Your task to perform on an android device: open app "Spotify" (install if not already installed) and go to login screen Image 0: 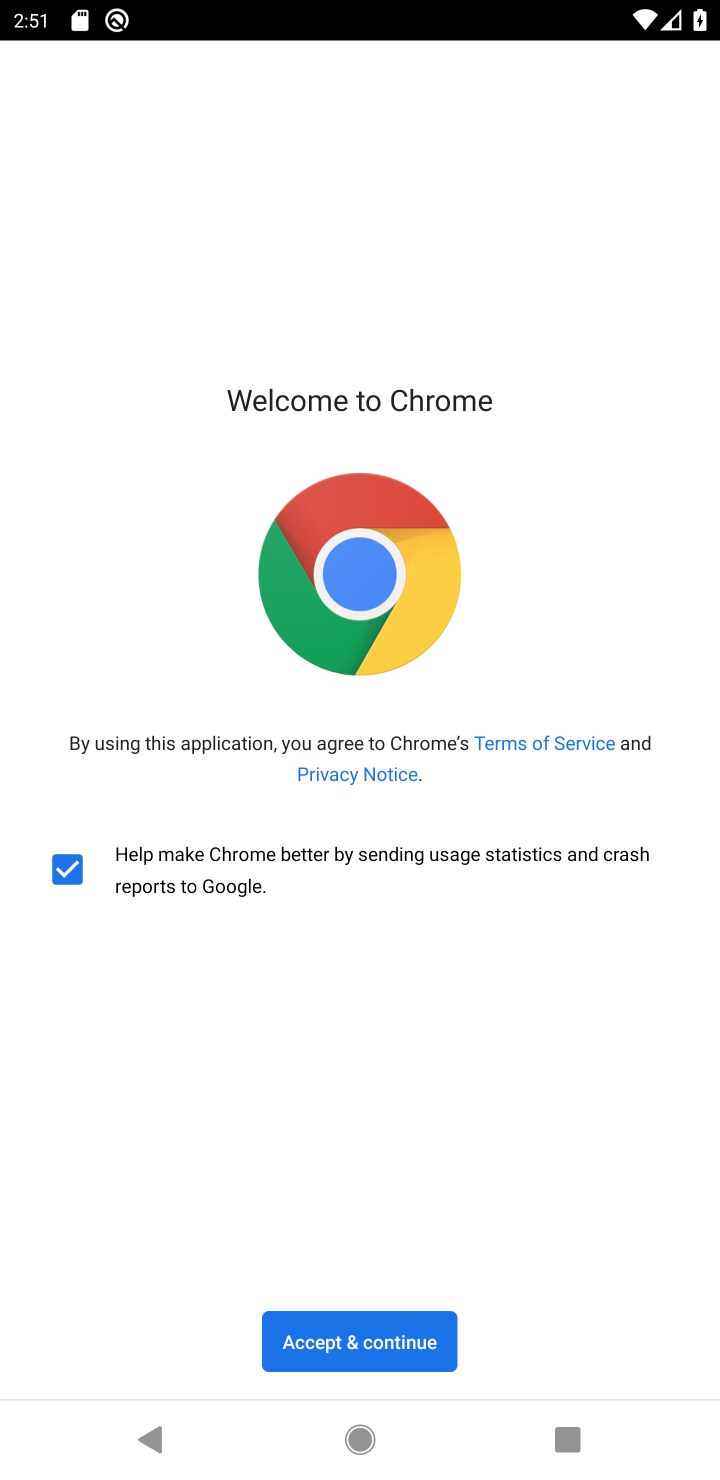
Step 0: press home button
Your task to perform on an android device: open app "Spotify" (install if not already installed) and go to login screen Image 1: 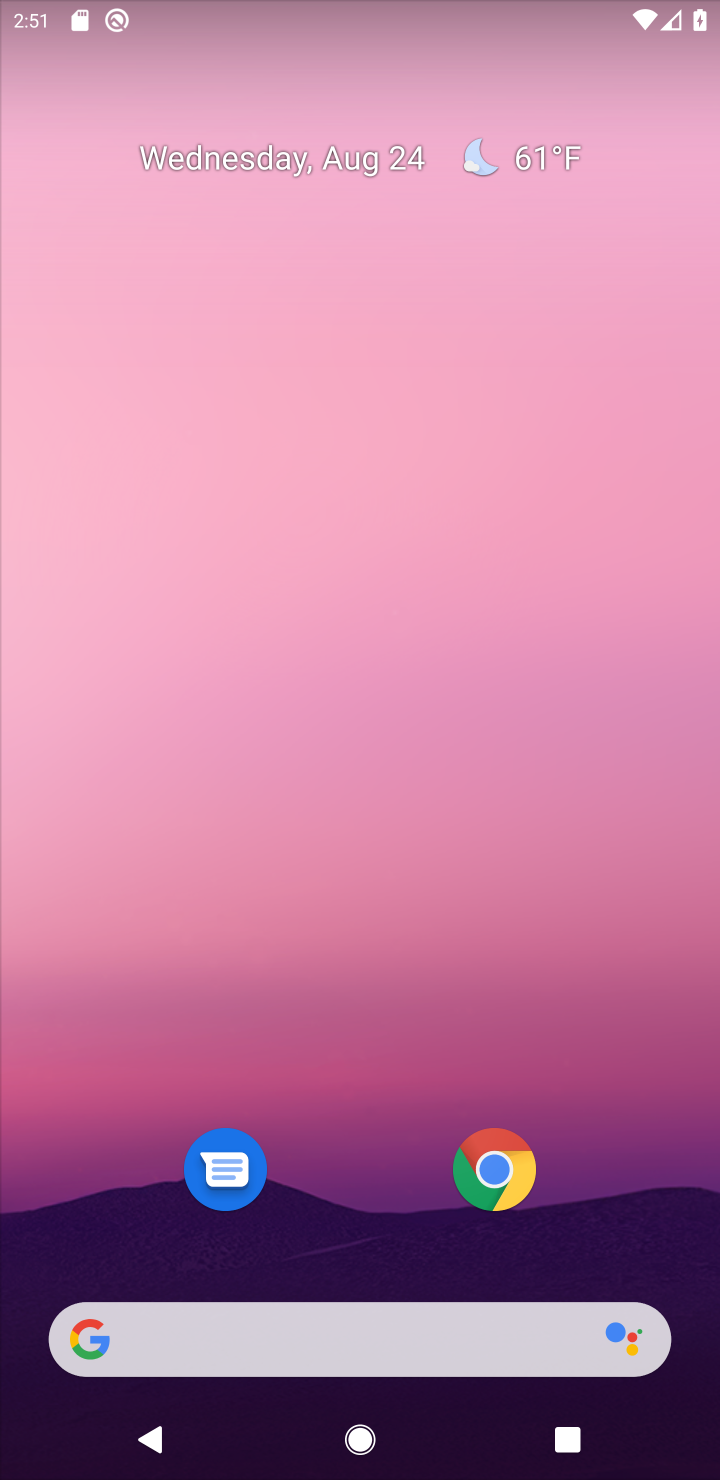
Step 1: drag from (406, 1259) to (285, 129)
Your task to perform on an android device: open app "Spotify" (install if not already installed) and go to login screen Image 2: 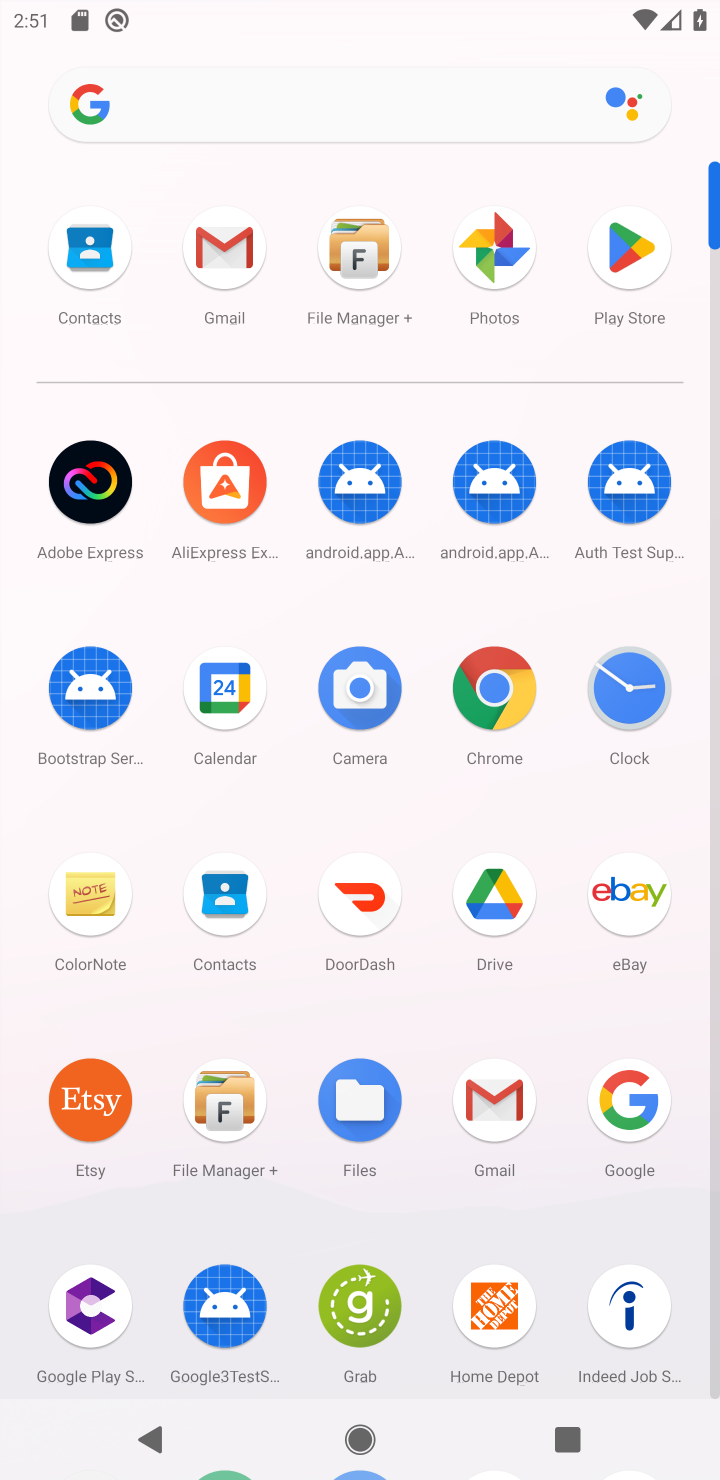
Step 2: click (608, 298)
Your task to perform on an android device: open app "Spotify" (install if not already installed) and go to login screen Image 3: 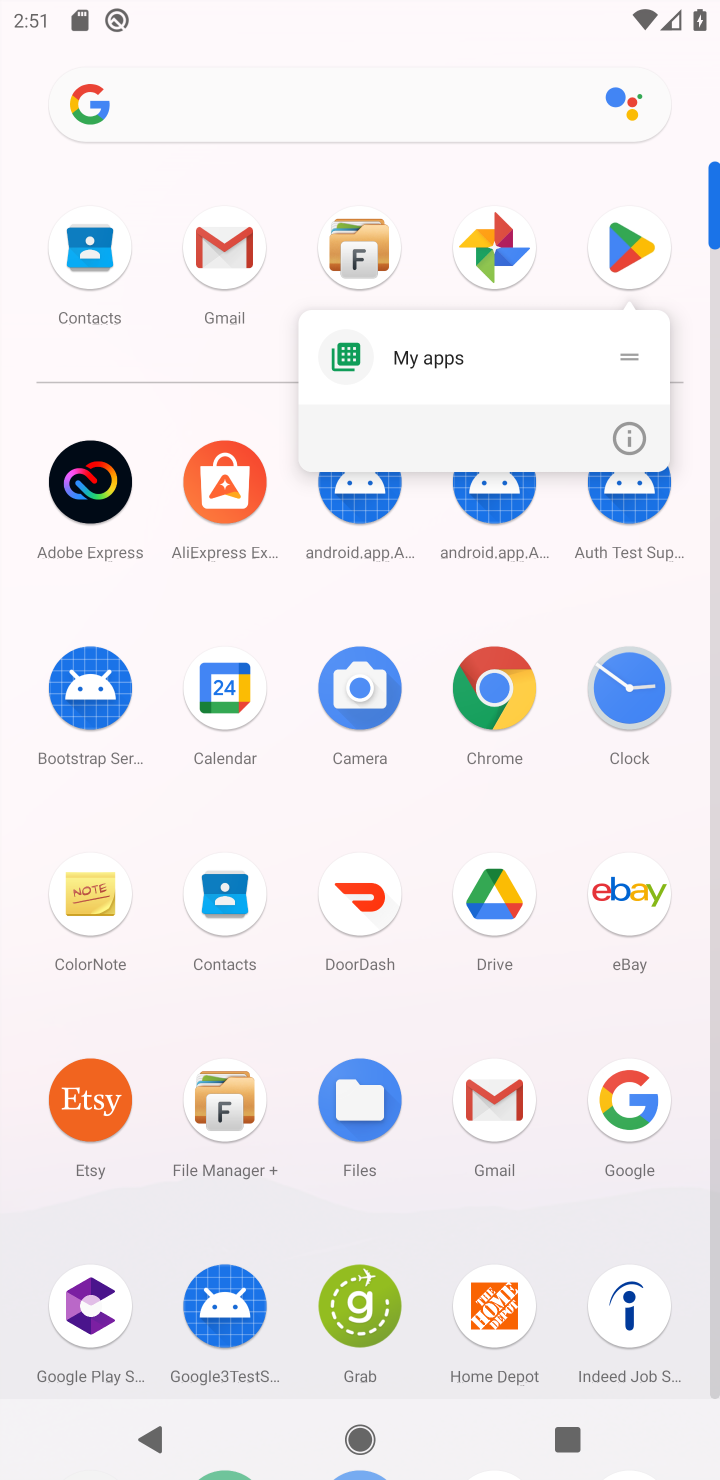
Step 3: click (642, 234)
Your task to perform on an android device: open app "Spotify" (install if not already installed) and go to login screen Image 4: 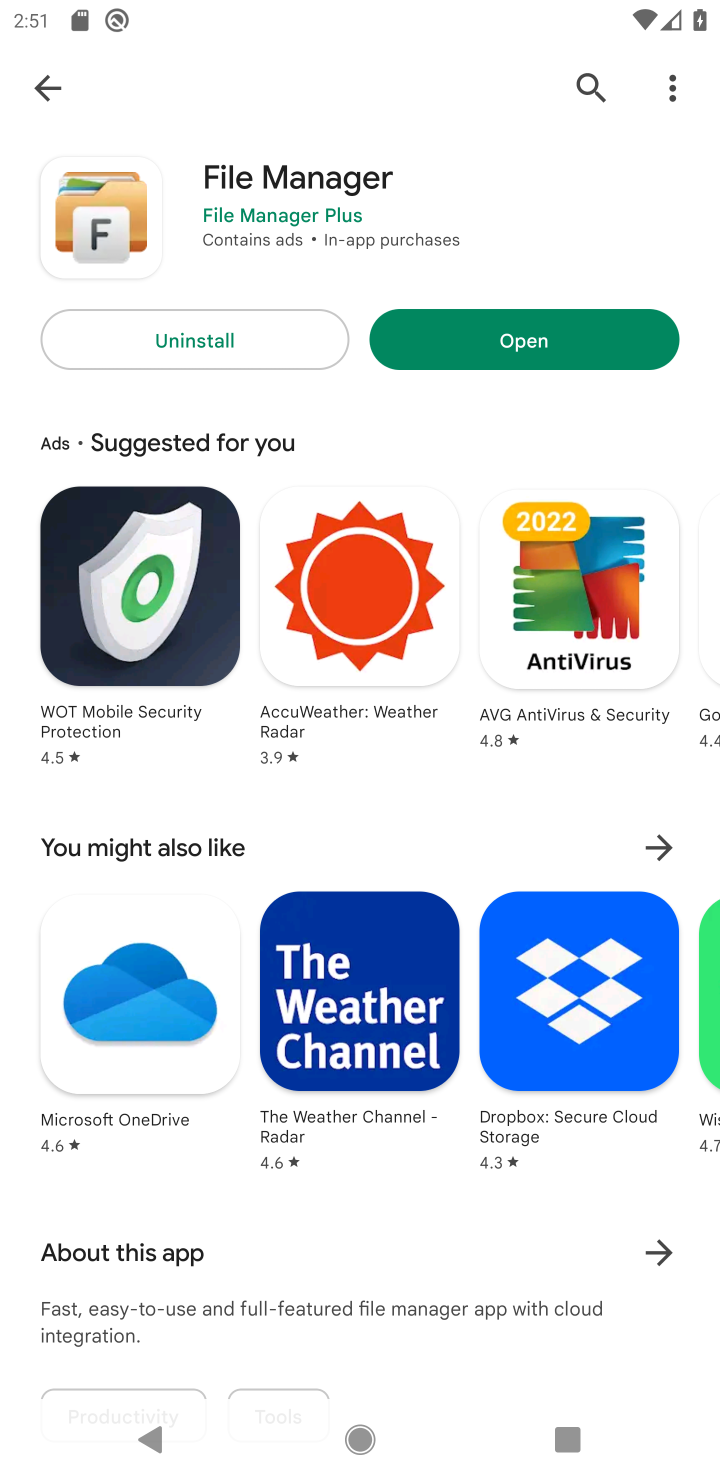
Step 4: click (30, 100)
Your task to perform on an android device: open app "Spotify" (install if not already installed) and go to login screen Image 5: 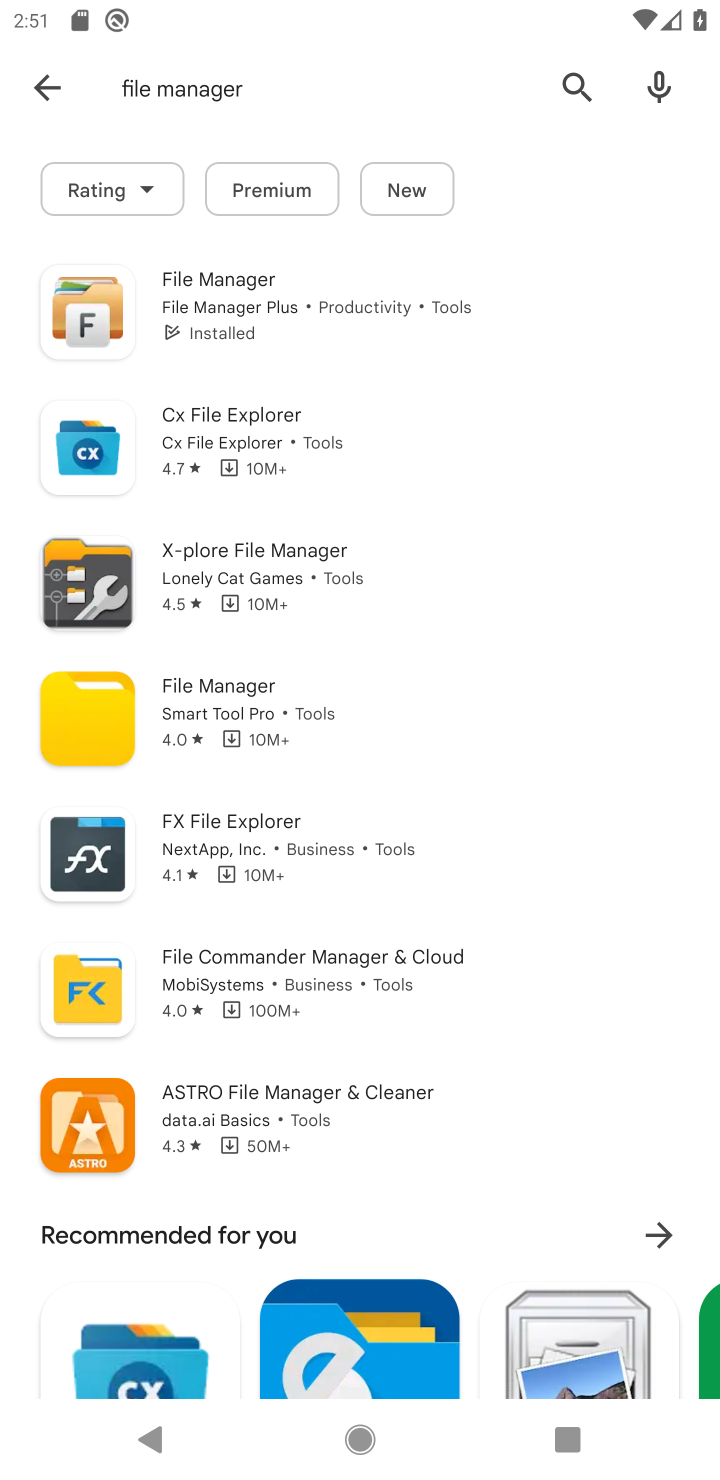
Step 5: click (584, 79)
Your task to perform on an android device: open app "Spotify" (install if not already installed) and go to login screen Image 6: 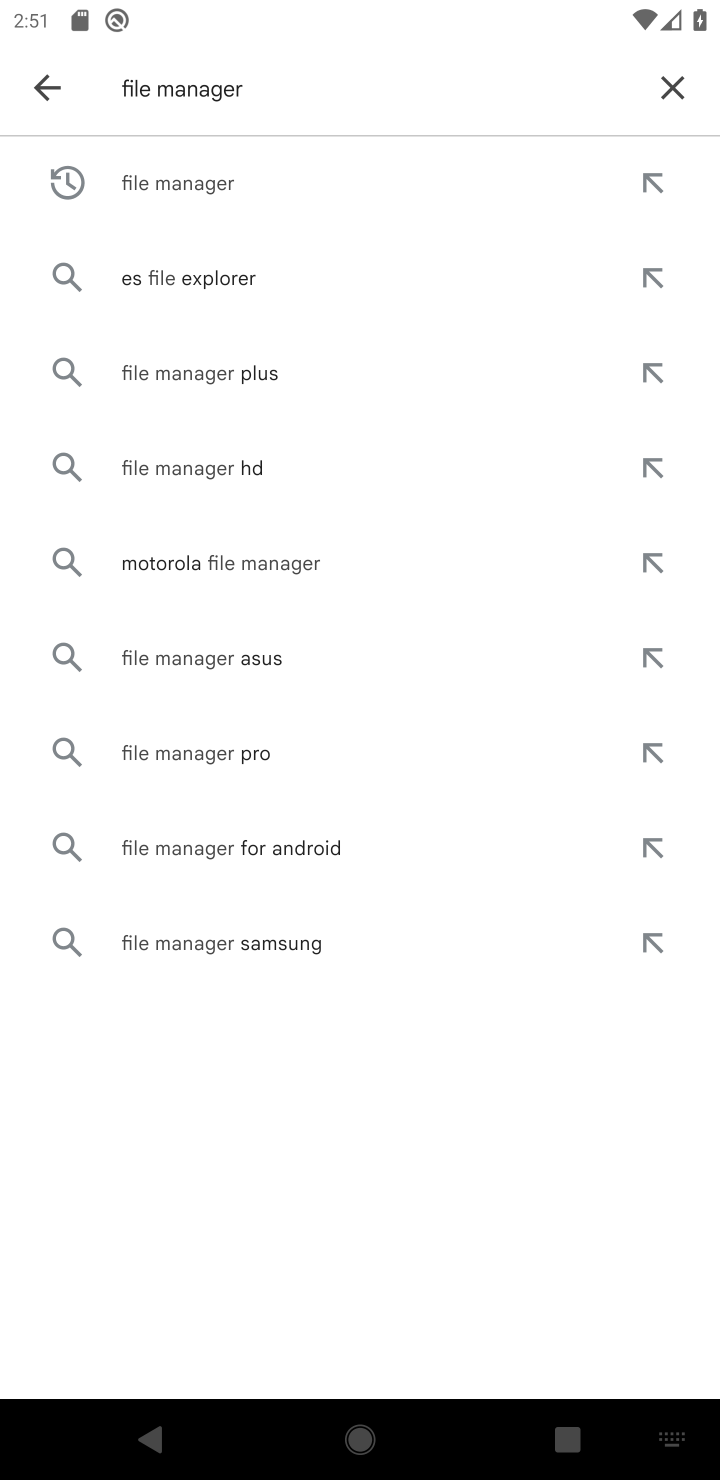
Step 6: click (675, 99)
Your task to perform on an android device: open app "Spotify" (install if not already installed) and go to login screen Image 7: 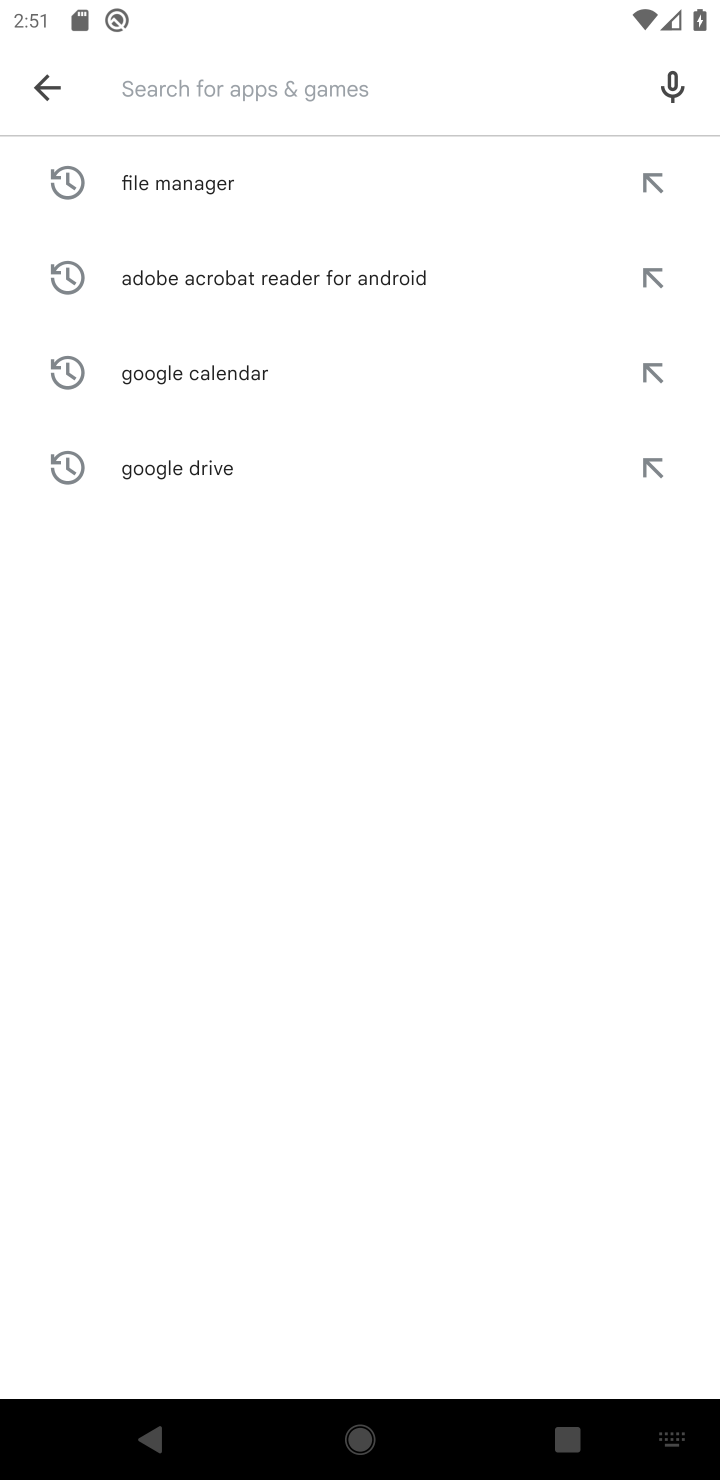
Step 7: type "Spotify"
Your task to perform on an android device: open app "Spotify" (install if not already installed) and go to login screen Image 8: 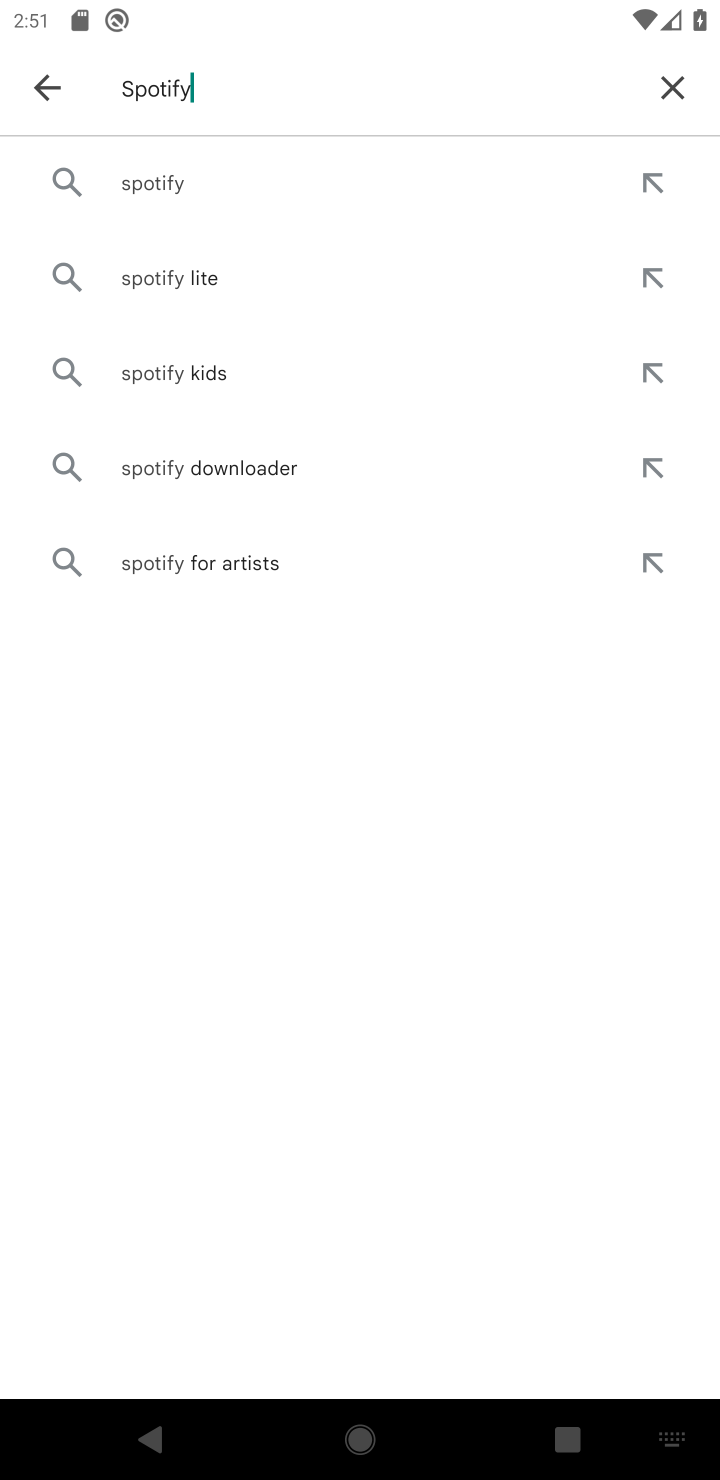
Step 8: click (185, 176)
Your task to perform on an android device: open app "Spotify" (install if not already installed) and go to login screen Image 9: 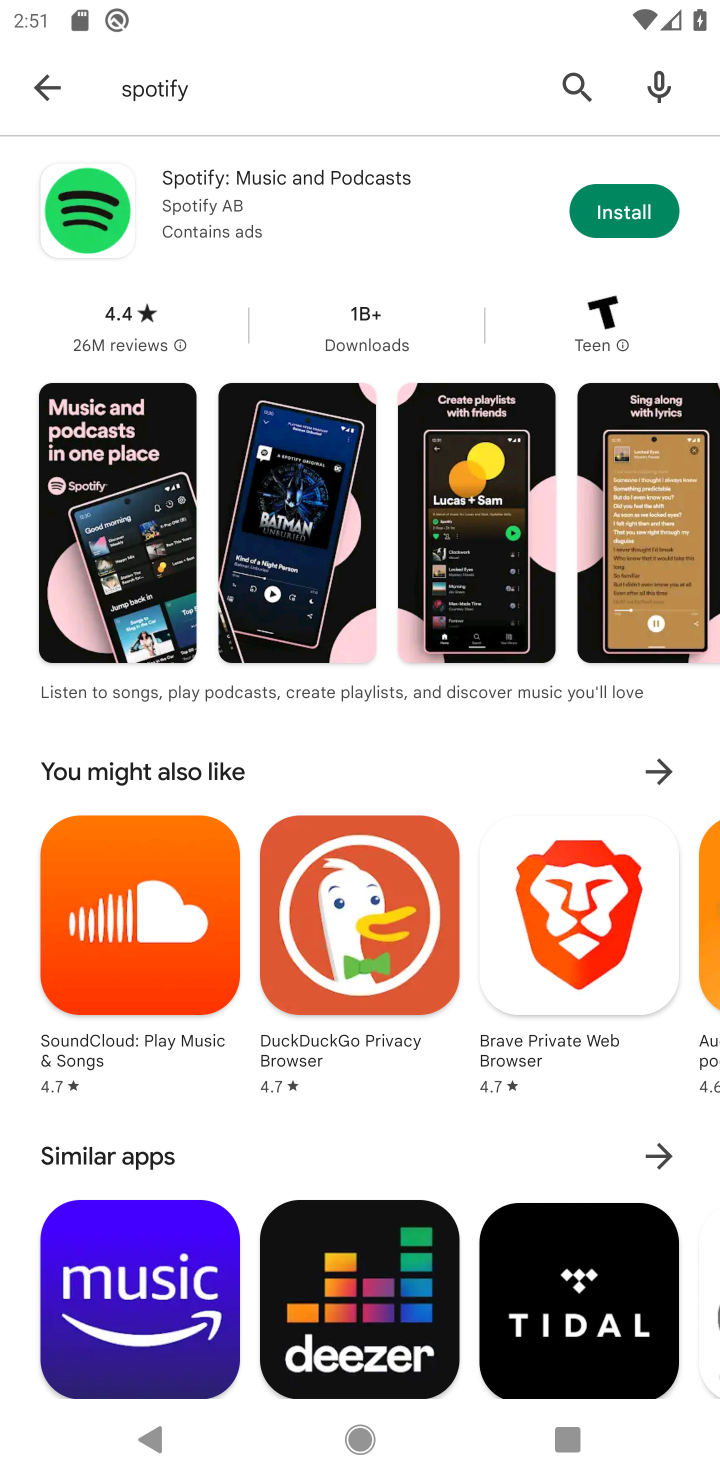
Step 9: click (596, 217)
Your task to perform on an android device: open app "Spotify" (install if not already installed) and go to login screen Image 10: 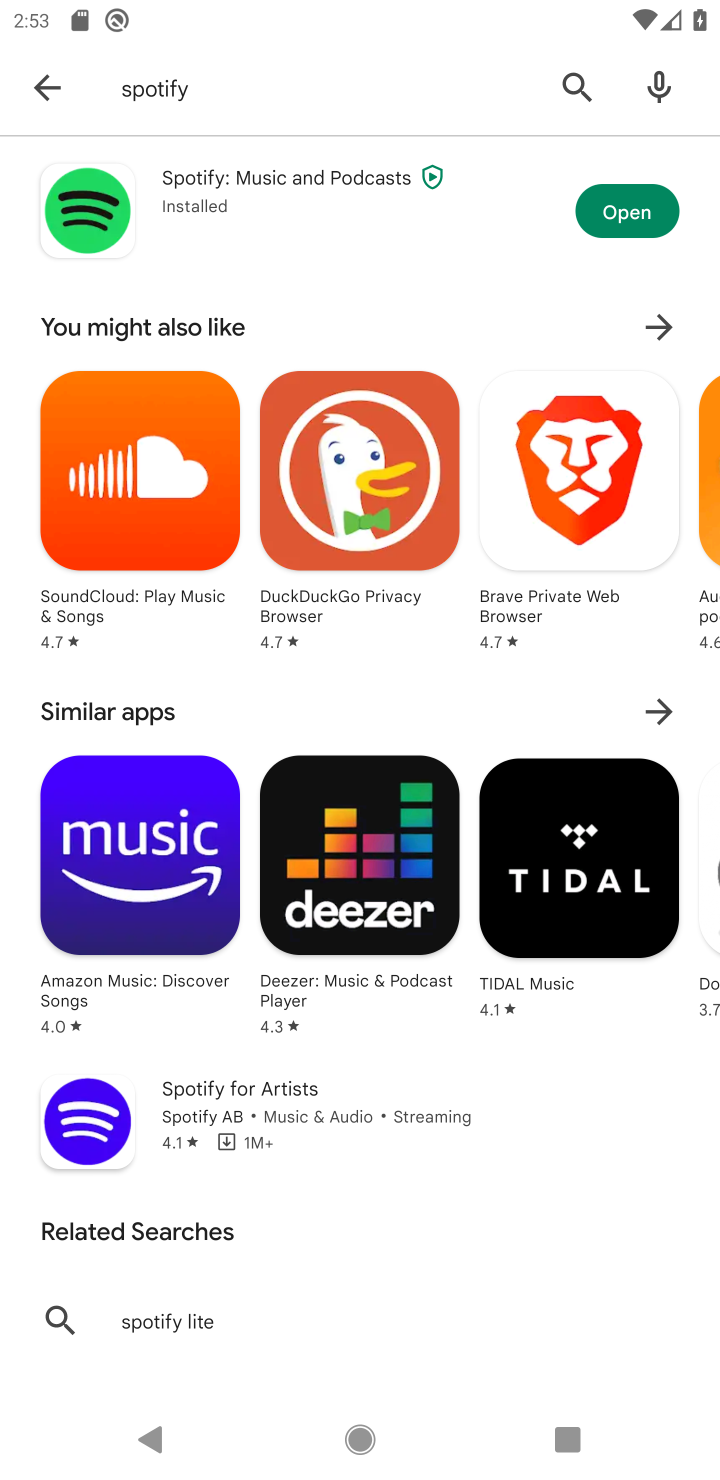
Step 10: click (659, 218)
Your task to perform on an android device: open app "Spotify" (install if not already installed) and go to login screen Image 11: 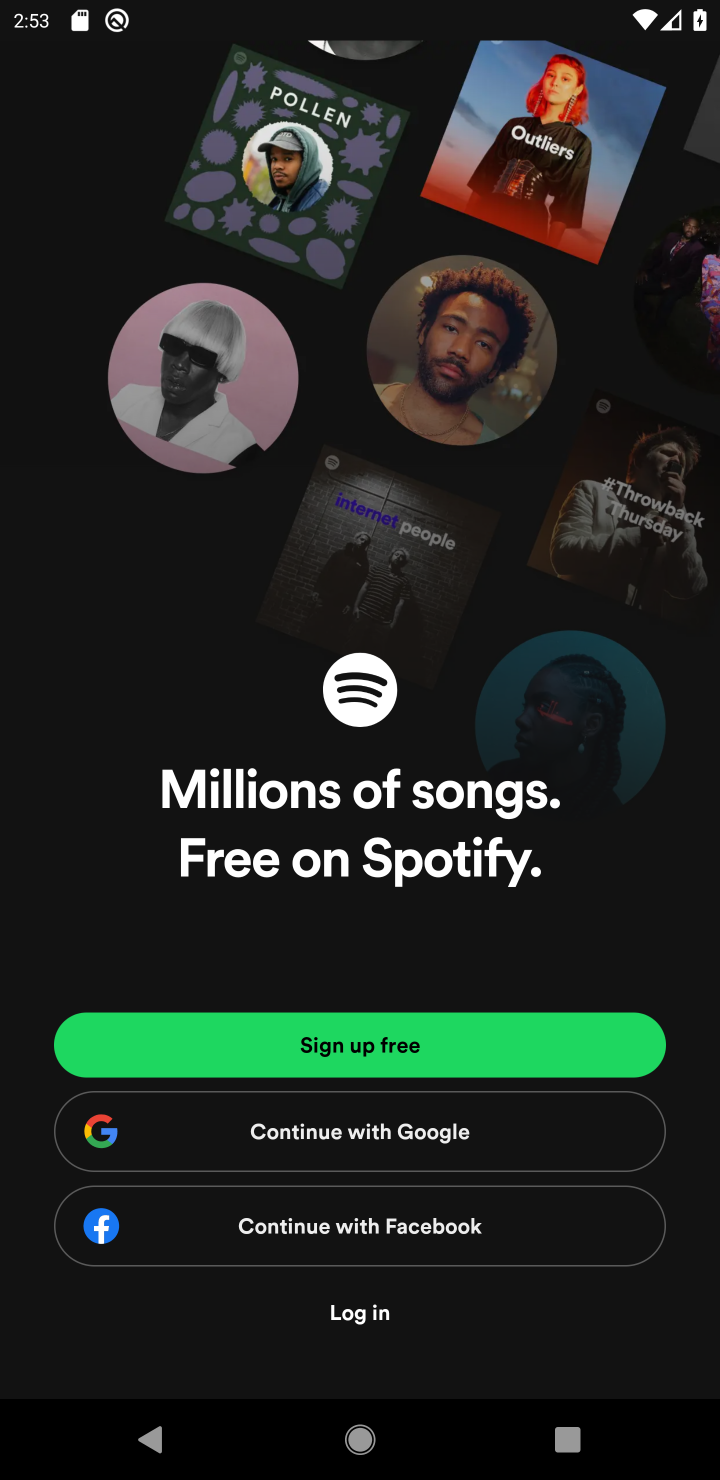
Step 11: task complete